Your task to perform on an android device: change timer sound Image 0: 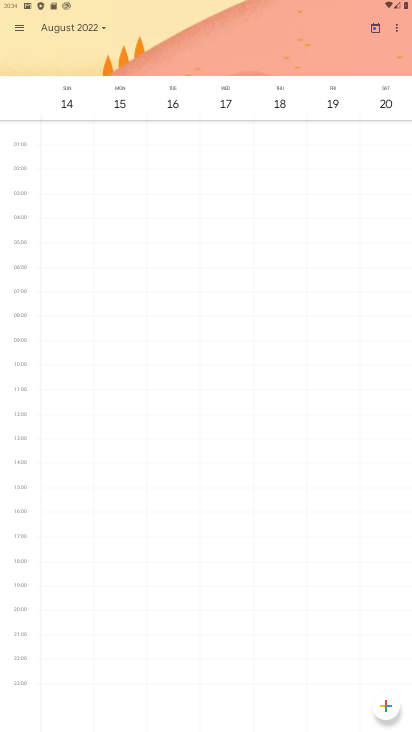
Step 0: press home button
Your task to perform on an android device: change timer sound Image 1: 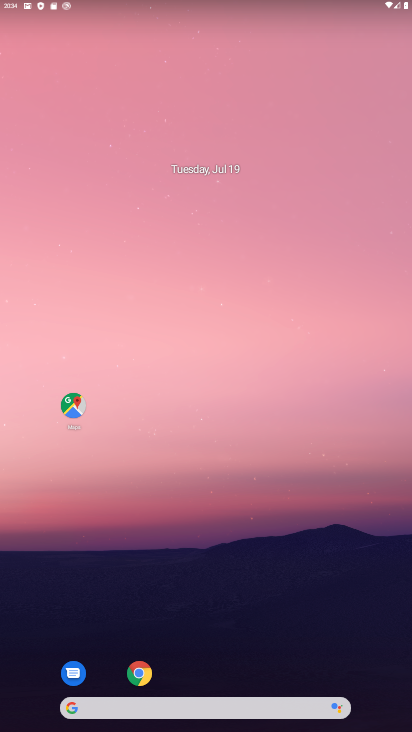
Step 1: drag from (210, 578) to (240, 17)
Your task to perform on an android device: change timer sound Image 2: 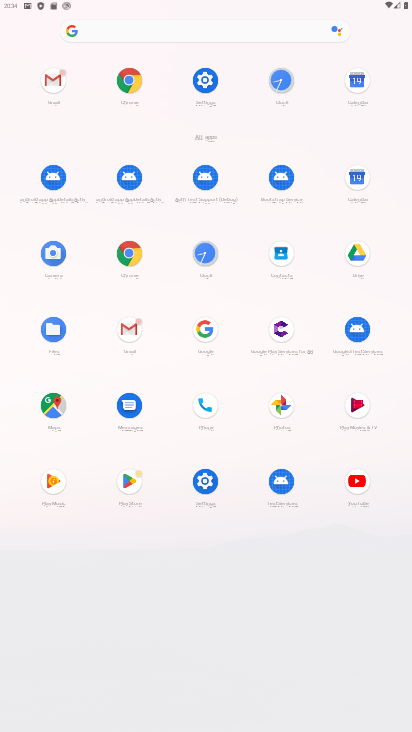
Step 2: click (205, 253)
Your task to perform on an android device: change timer sound Image 3: 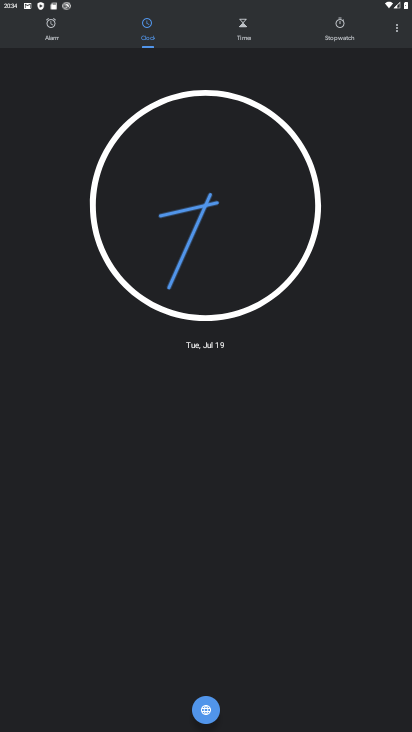
Step 3: click (392, 39)
Your task to perform on an android device: change timer sound Image 4: 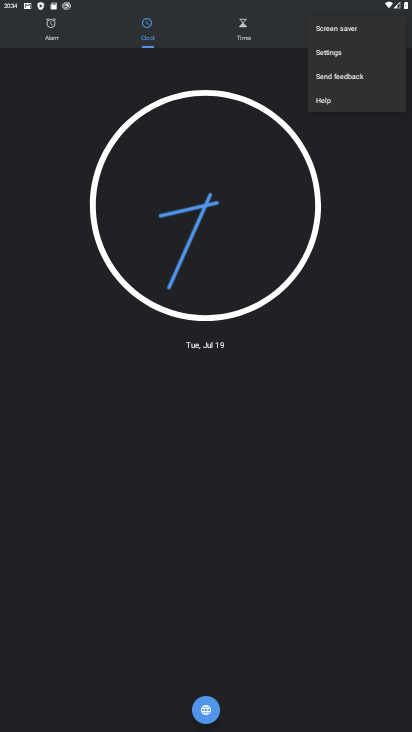
Step 4: click (332, 59)
Your task to perform on an android device: change timer sound Image 5: 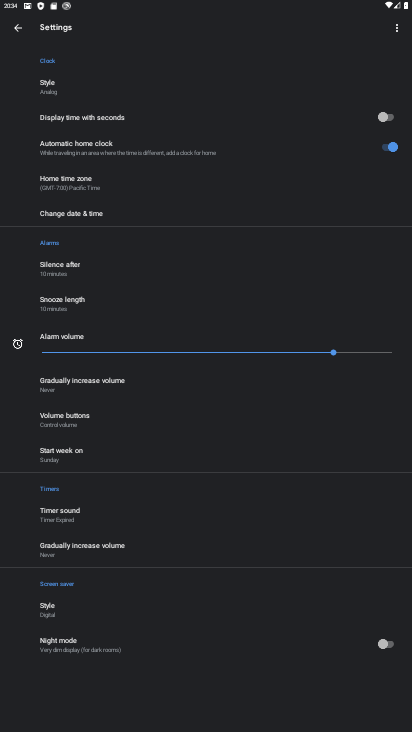
Step 5: click (70, 517)
Your task to perform on an android device: change timer sound Image 6: 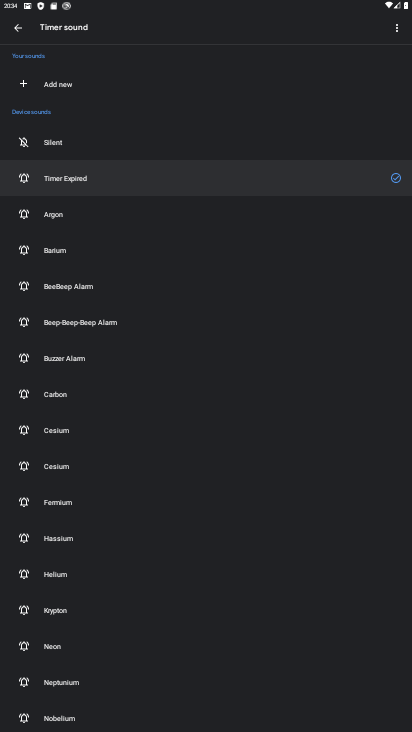
Step 6: click (55, 400)
Your task to perform on an android device: change timer sound Image 7: 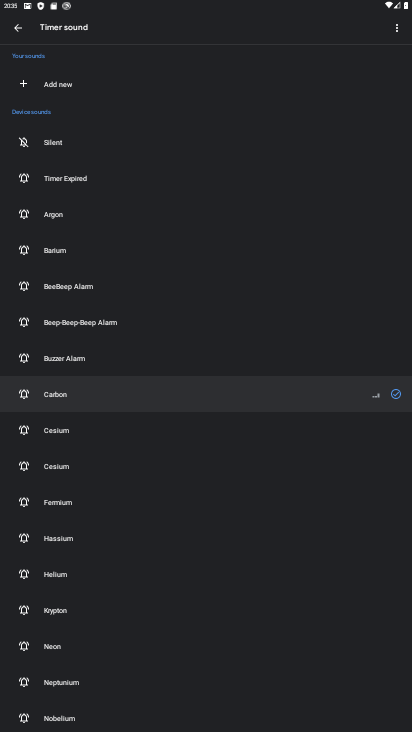
Step 7: task complete